Your task to perform on an android device: open app "Gboard" (install if not already installed) Image 0: 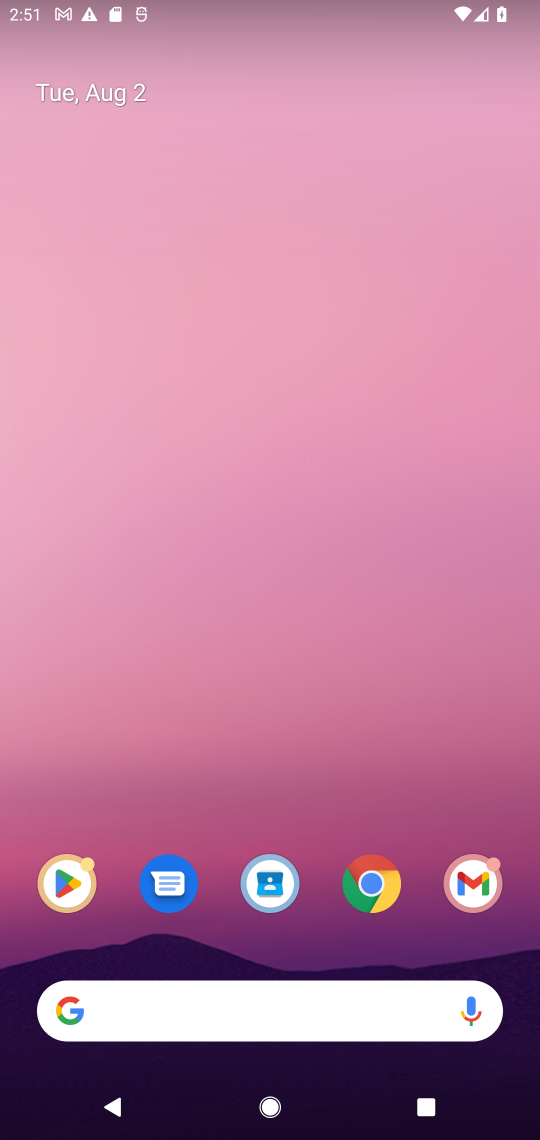
Step 0: press home button
Your task to perform on an android device: open app "Gboard" (install if not already installed) Image 1: 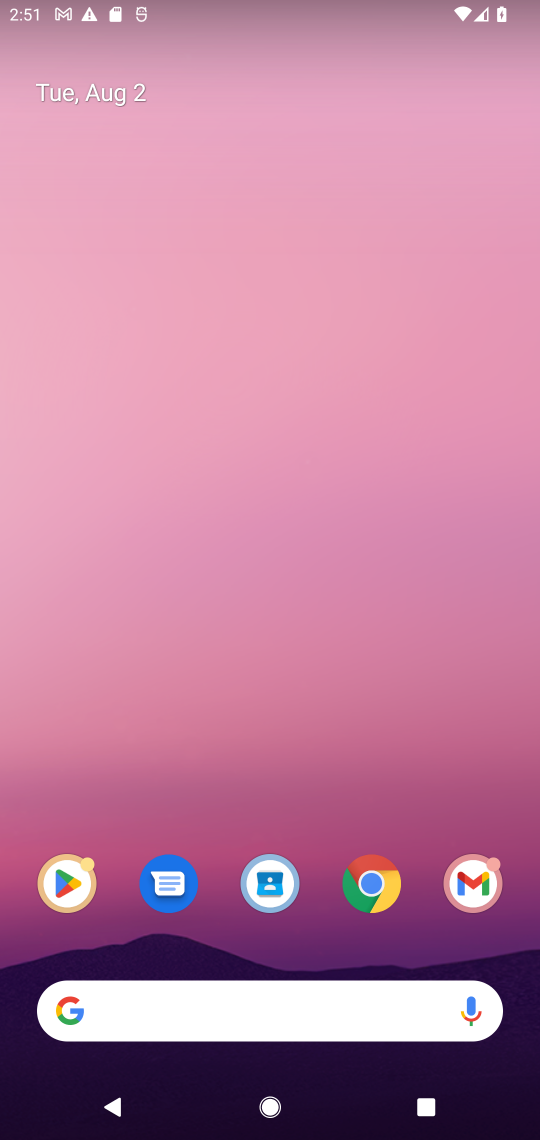
Step 1: press home button
Your task to perform on an android device: open app "Gboard" (install if not already installed) Image 2: 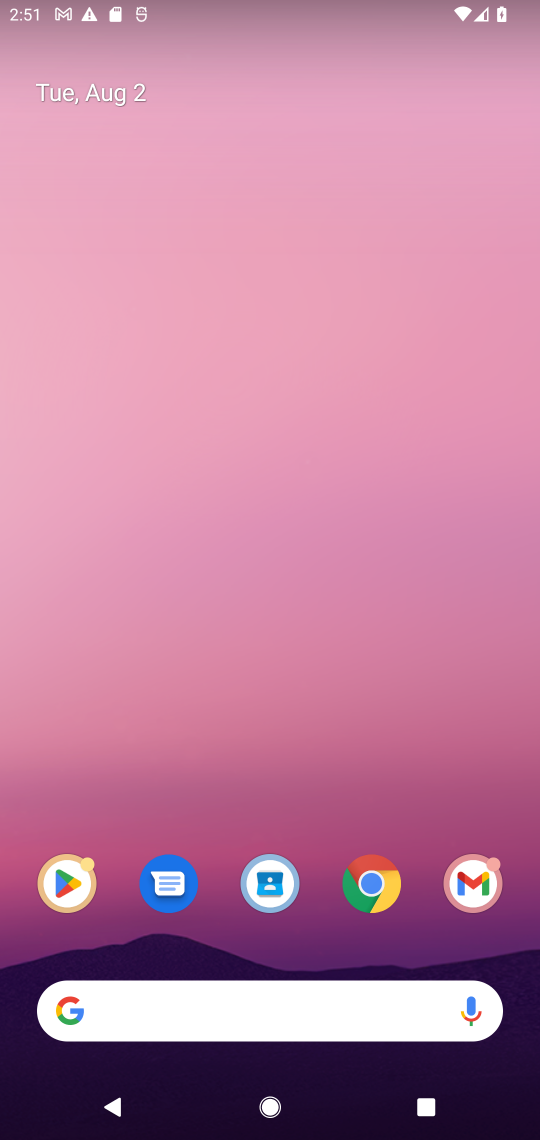
Step 2: click (61, 896)
Your task to perform on an android device: open app "Gboard" (install if not already installed) Image 3: 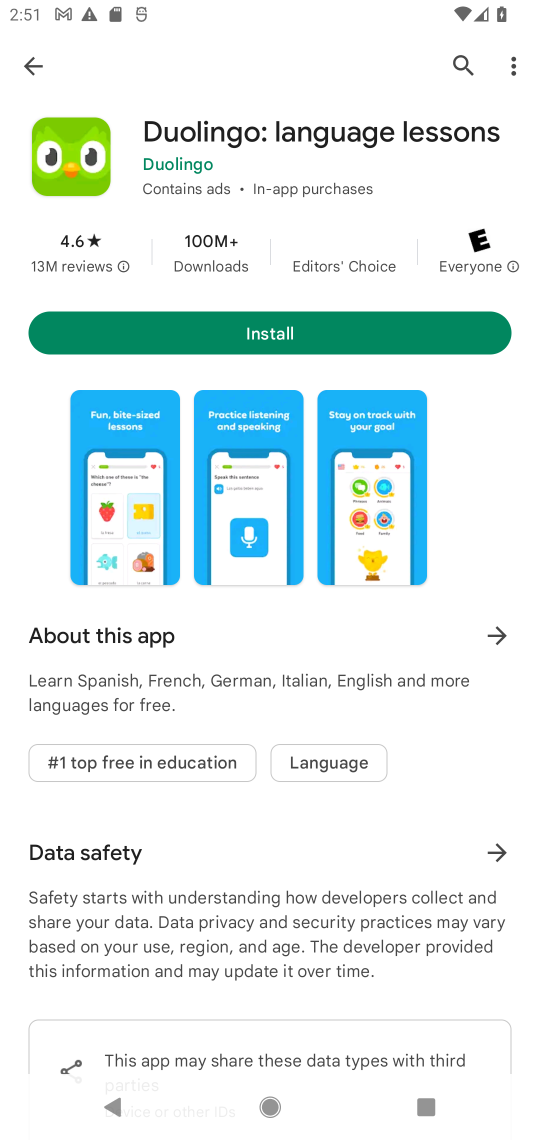
Step 3: click (464, 62)
Your task to perform on an android device: open app "Gboard" (install if not already installed) Image 4: 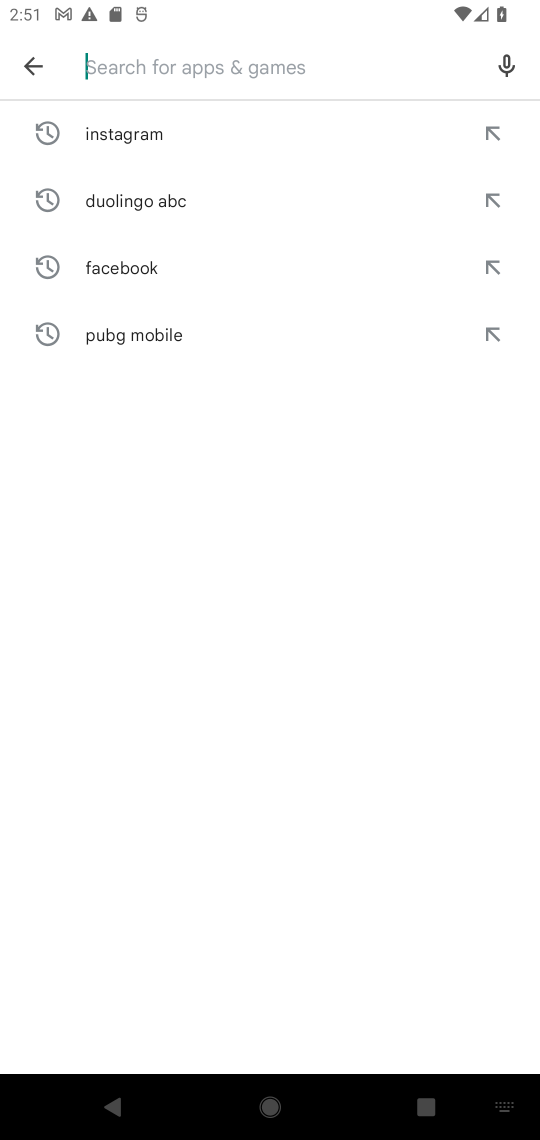
Step 4: type "Gboard"
Your task to perform on an android device: open app "Gboard" (install if not already installed) Image 5: 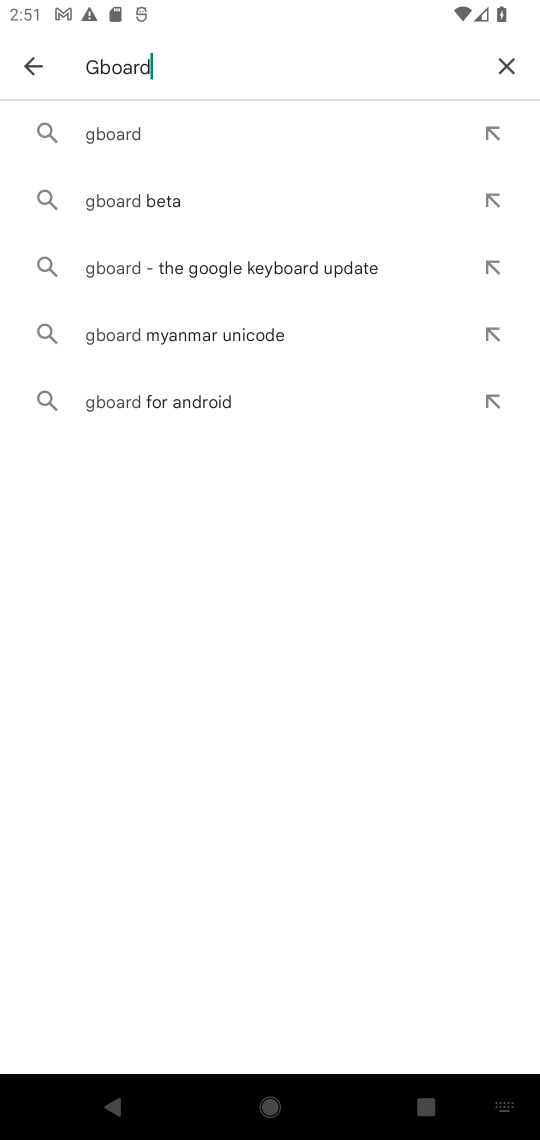
Step 5: type ""
Your task to perform on an android device: open app "Gboard" (install if not already installed) Image 6: 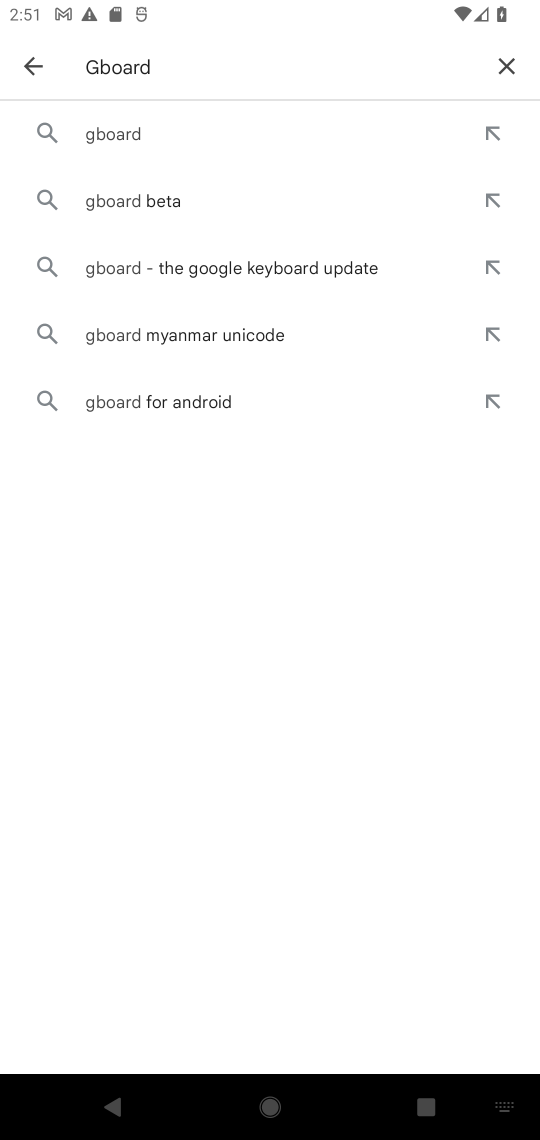
Step 6: click (126, 143)
Your task to perform on an android device: open app "Gboard" (install if not already installed) Image 7: 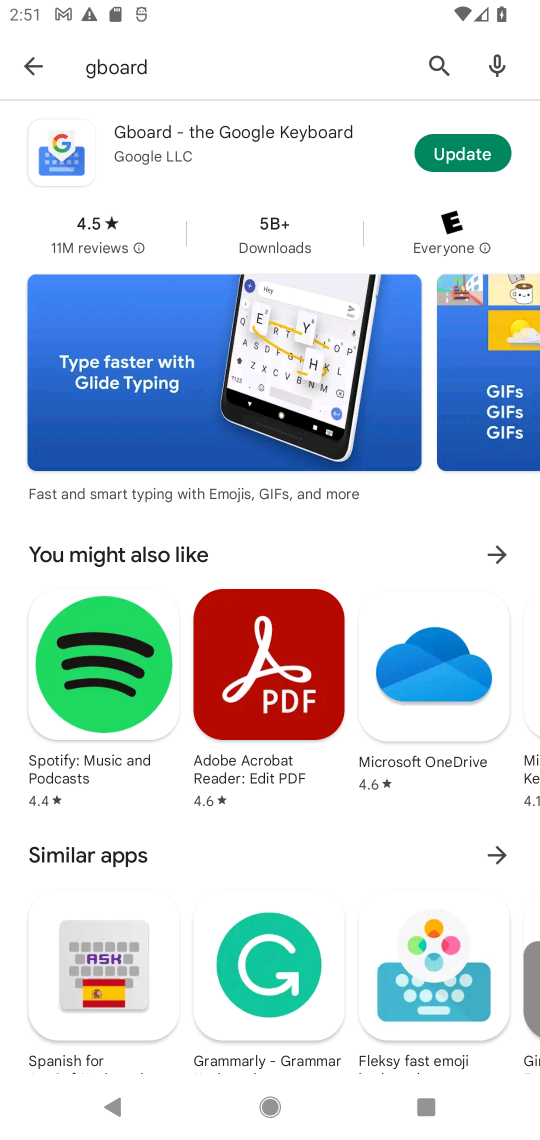
Step 7: click (333, 126)
Your task to perform on an android device: open app "Gboard" (install if not already installed) Image 8: 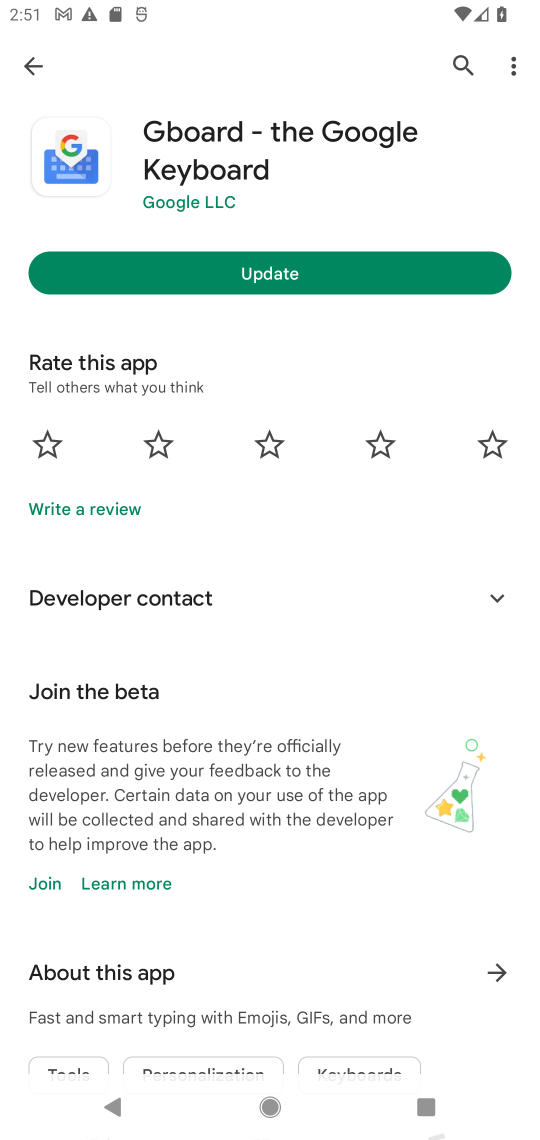
Step 8: task complete